Your task to perform on an android device: Search for Italian restaurants on Maps Image 0: 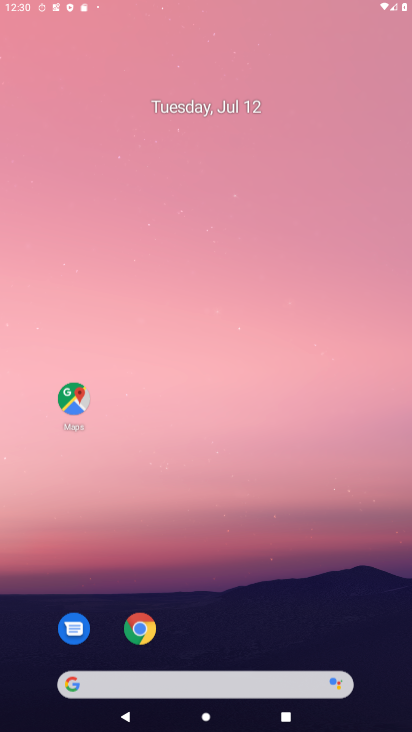
Step 0: press home button
Your task to perform on an android device: Search for Italian restaurants on Maps Image 1: 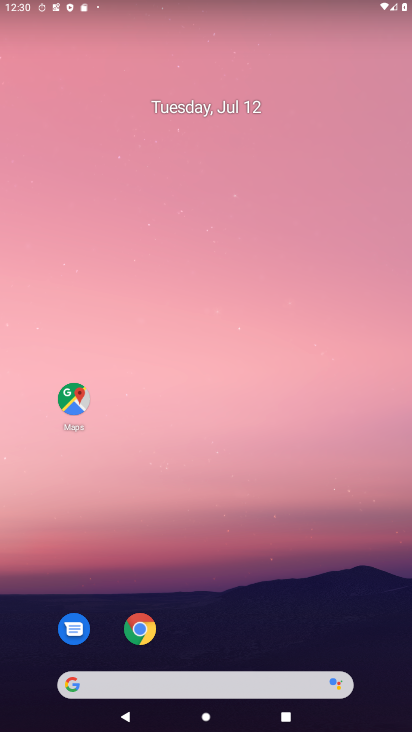
Step 1: drag from (343, 606) to (233, 145)
Your task to perform on an android device: Search for Italian restaurants on Maps Image 2: 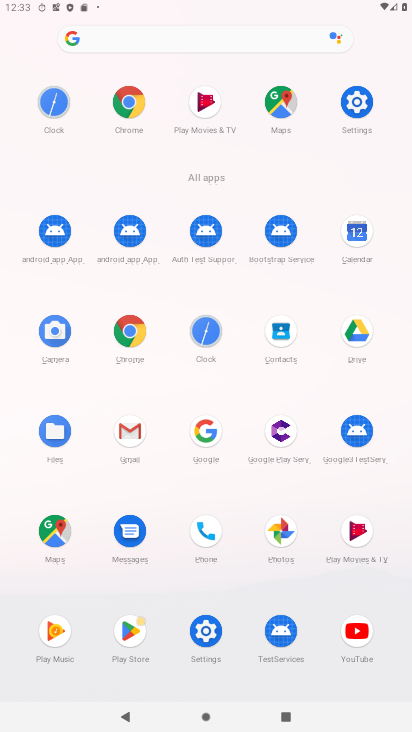
Step 2: click (289, 85)
Your task to perform on an android device: Search for Italian restaurants on Maps Image 3: 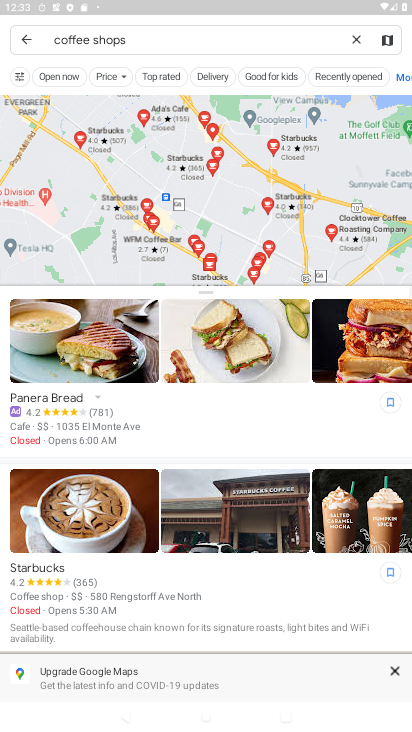
Step 3: click (350, 42)
Your task to perform on an android device: Search for Italian restaurants on Maps Image 4: 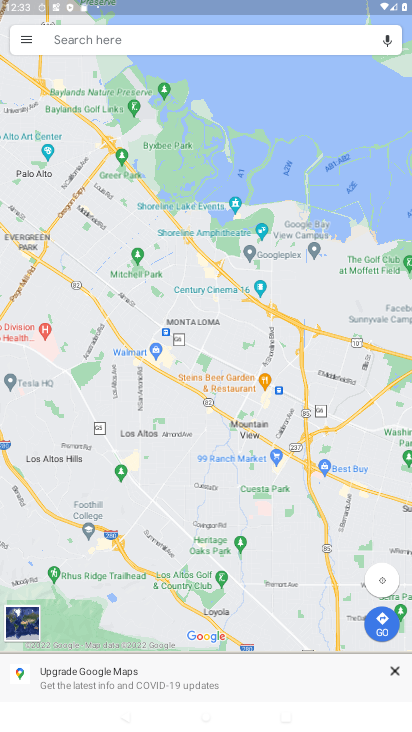
Step 4: click (306, 42)
Your task to perform on an android device: Search for Italian restaurants on Maps Image 5: 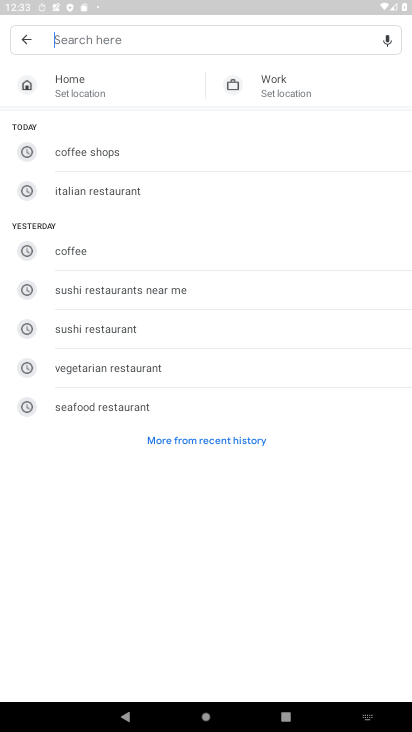
Step 5: type "Italian restaurants"
Your task to perform on an android device: Search for Italian restaurants on Maps Image 6: 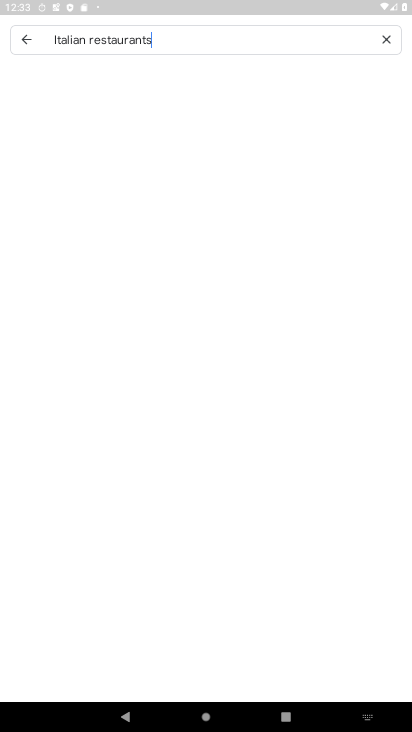
Step 6: type ""
Your task to perform on an android device: Search for Italian restaurants on Maps Image 7: 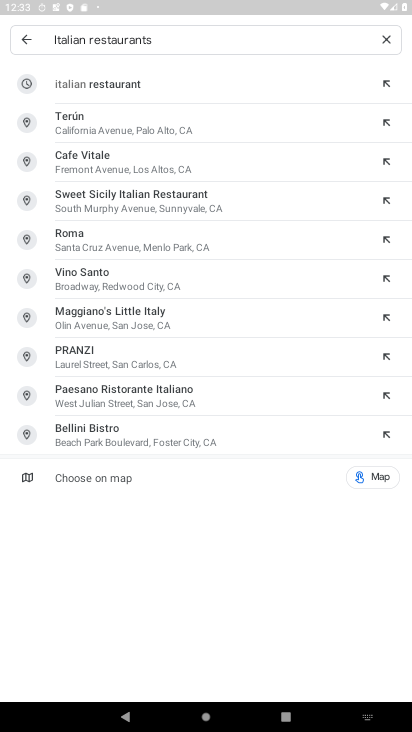
Step 7: click (225, 80)
Your task to perform on an android device: Search for Italian restaurants on Maps Image 8: 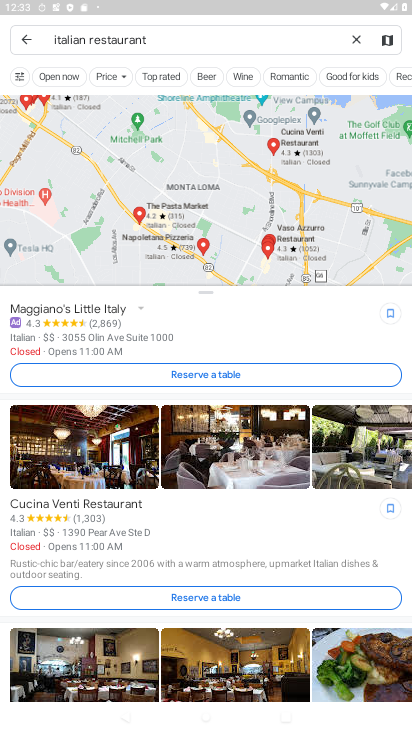
Step 8: task complete